Your task to perform on an android device: toggle show notifications on the lock screen Image 0: 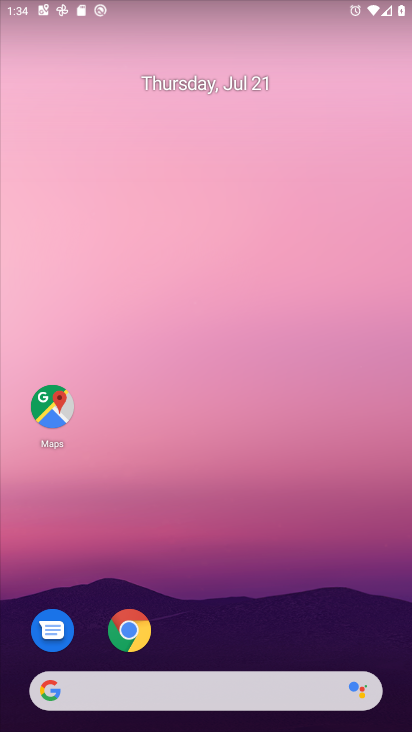
Step 0: drag from (186, 653) to (373, 12)
Your task to perform on an android device: toggle show notifications on the lock screen Image 1: 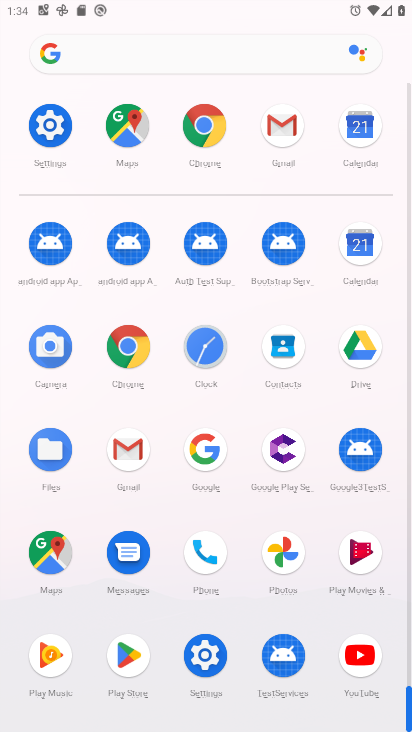
Step 1: click (39, 134)
Your task to perform on an android device: toggle show notifications on the lock screen Image 2: 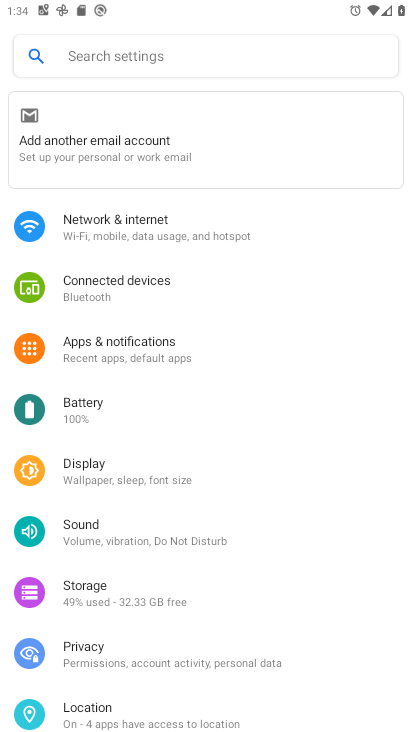
Step 2: click (142, 339)
Your task to perform on an android device: toggle show notifications on the lock screen Image 3: 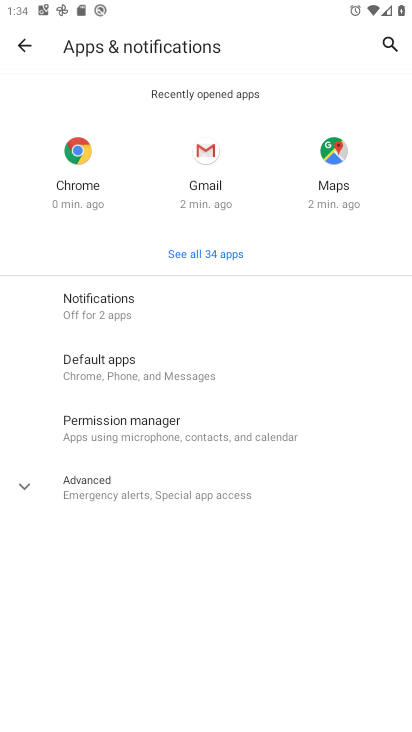
Step 3: click (135, 322)
Your task to perform on an android device: toggle show notifications on the lock screen Image 4: 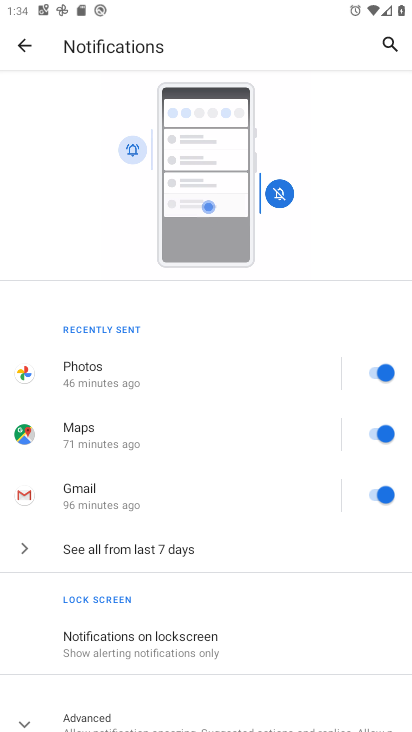
Step 4: click (182, 642)
Your task to perform on an android device: toggle show notifications on the lock screen Image 5: 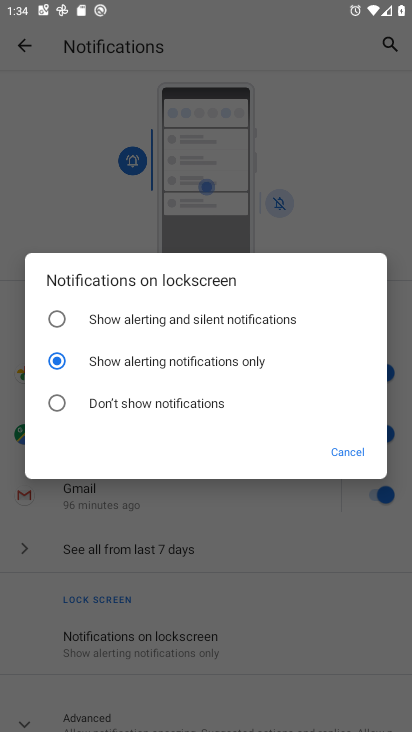
Step 5: click (112, 315)
Your task to perform on an android device: toggle show notifications on the lock screen Image 6: 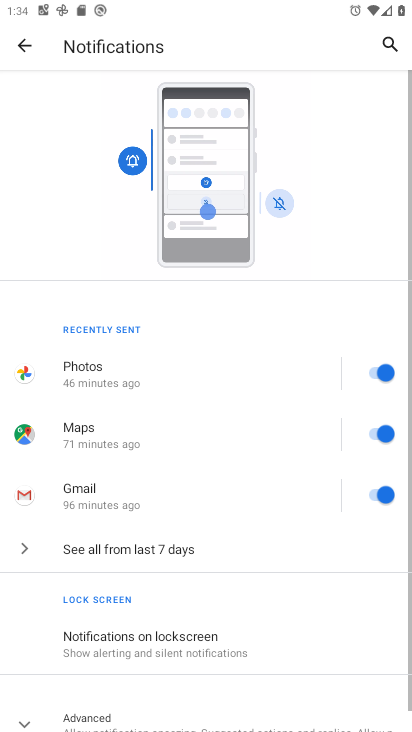
Step 6: task complete